Your task to perform on an android device: turn off airplane mode Image 0: 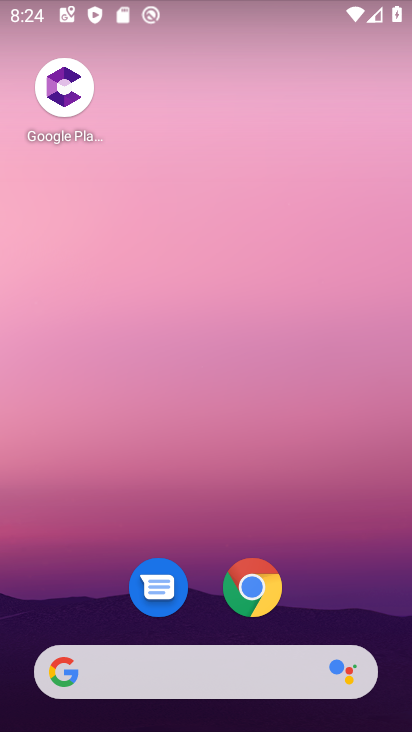
Step 0: drag from (238, 21) to (227, 383)
Your task to perform on an android device: turn off airplane mode Image 1: 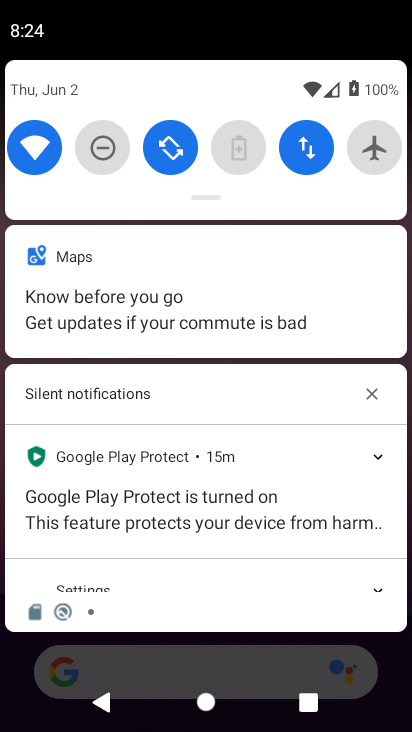
Step 1: task complete